Your task to perform on an android device: open sync settings in chrome Image 0: 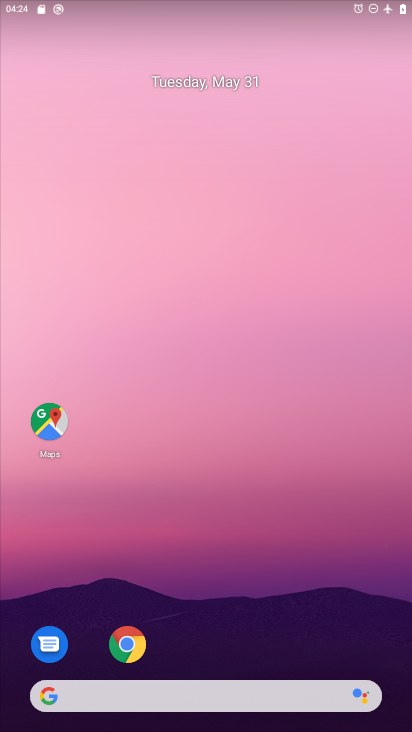
Step 0: drag from (222, 627) to (258, 94)
Your task to perform on an android device: open sync settings in chrome Image 1: 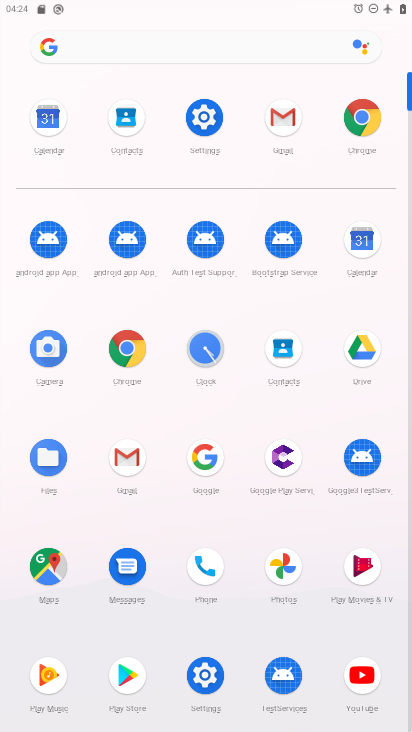
Step 1: click (128, 348)
Your task to perform on an android device: open sync settings in chrome Image 2: 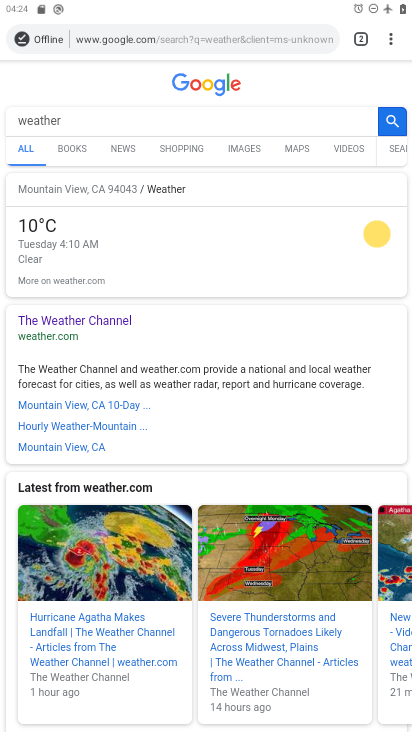
Step 2: drag from (396, 34) to (247, 444)
Your task to perform on an android device: open sync settings in chrome Image 3: 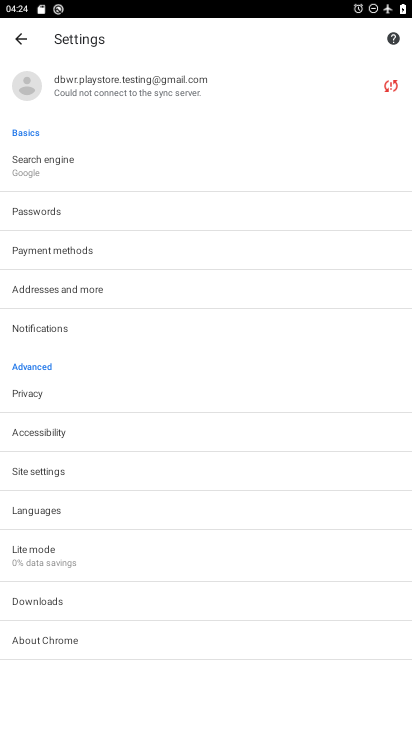
Step 3: click (138, 79)
Your task to perform on an android device: open sync settings in chrome Image 4: 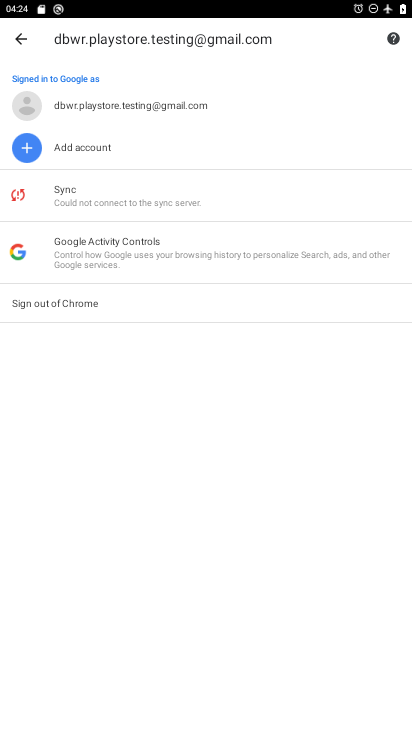
Step 4: click (130, 214)
Your task to perform on an android device: open sync settings in chrome Image 5: 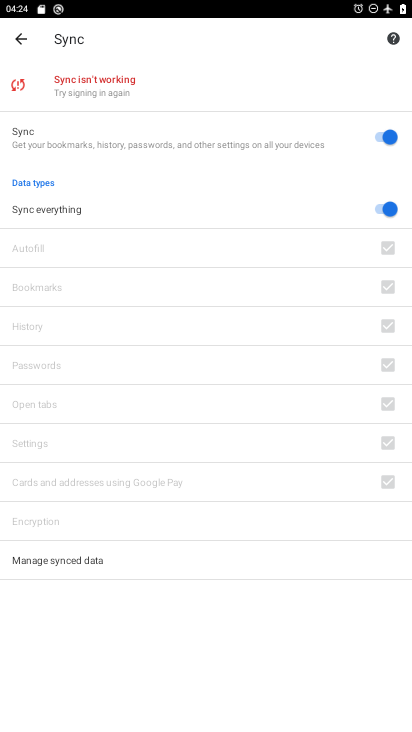
Step 5: task complete